Your task to perform on an android device: Open sound settings Image 0: 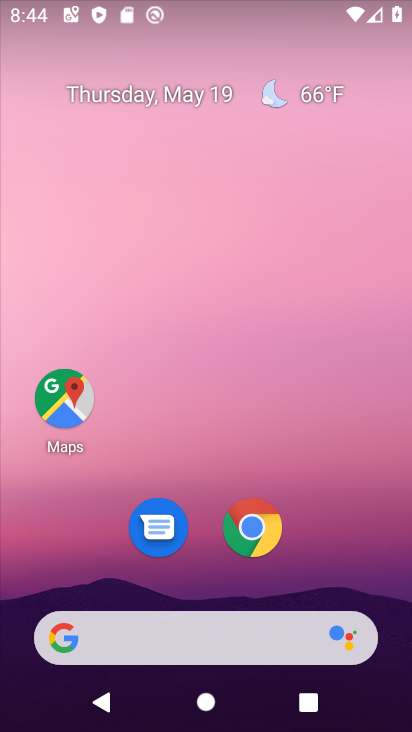
Step 0: drag from (224, 576) to (201, 142)
Your task to perform on an android device: Open sound settings Image 1: 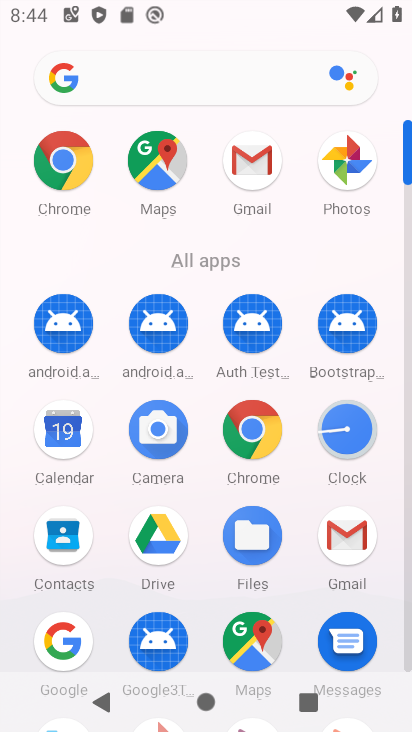
Step 1: drag from (293, 502) to (252, 215)
Your task to perform on an android device: Open sound settings Image 2: 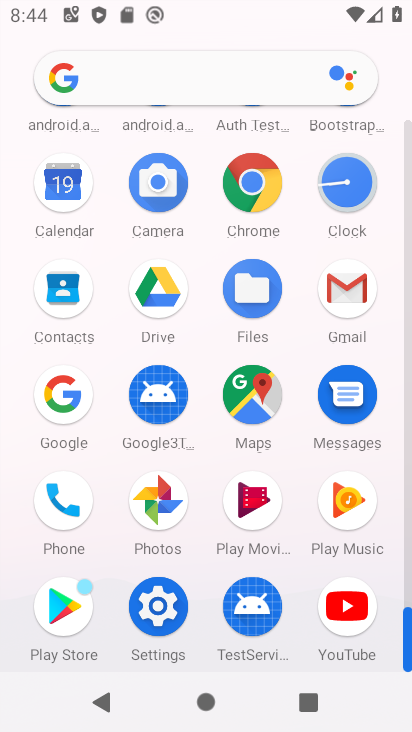
Step 2: click (151, 616)
Your task to perform on an android device: Open sound settings Image 3: 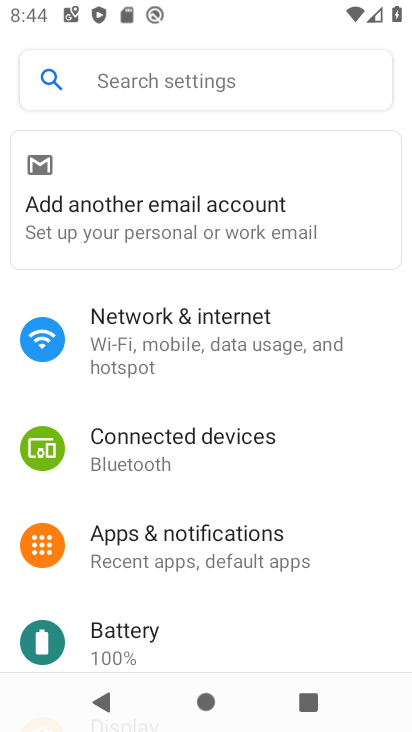
Step 3: drag from (148, 568) to (146, 296)
Your task to perform on an android device: Open sound settings Image 4: 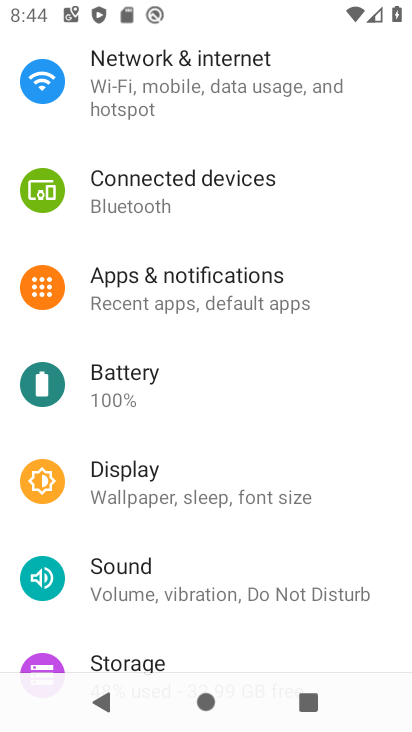
Step 4: drag from (211, 491) to (214, 312)
Your task to perform on an android device: Open sound settings Image 5: 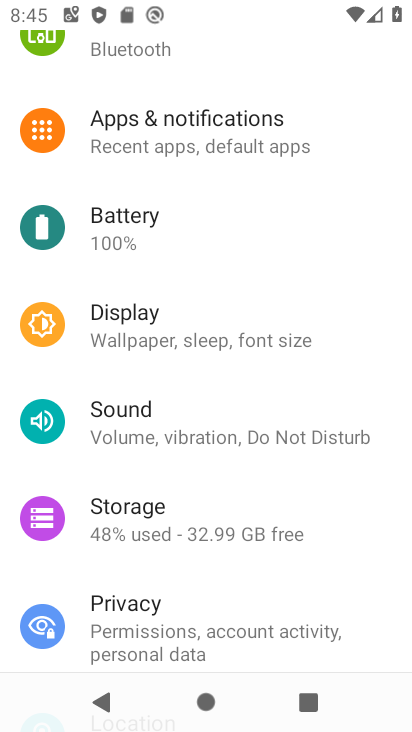
Step 5: click (205, 418)
Your task to perform on an android device: Open sound settings Image 6: 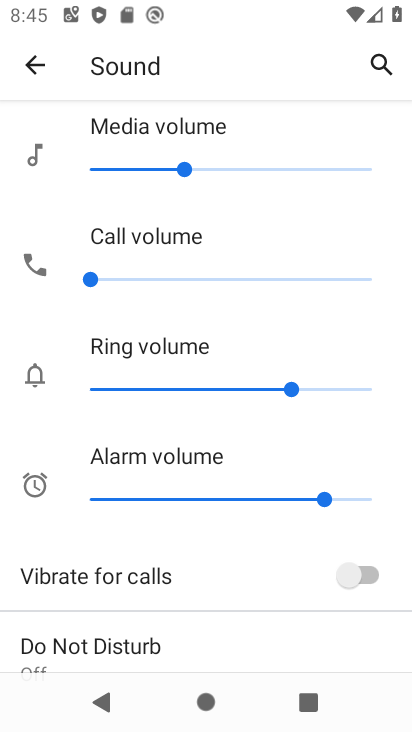
Step 6: task complete